Your task to perform on an android device: open app "Microsoft Outlook" (install if not already installed) and go to login screen Image 0: 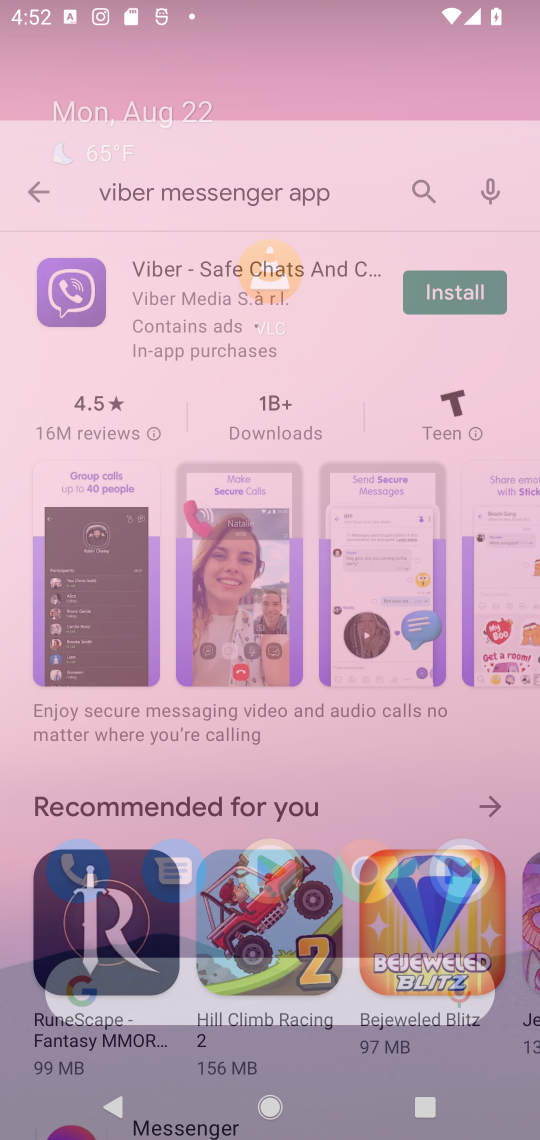
Step 0: press home button
Your task to perform on an android device: open app "Microsoft Outlook" (install if not already installed) and go to login screen Image 1: 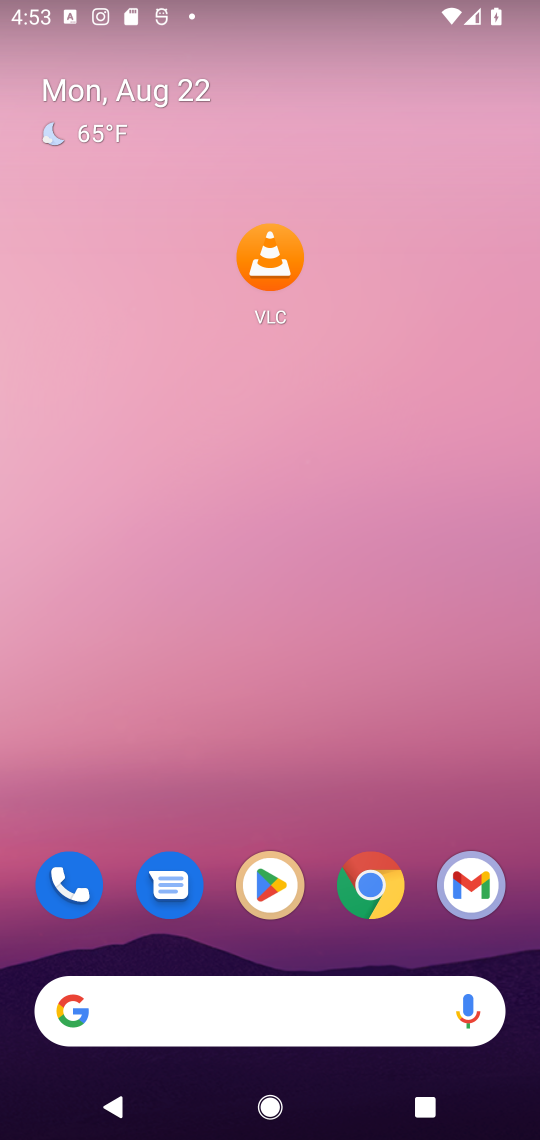
Step 1: click (262, 879)
Your task to perform on an android device: open app "Microsoft Outlook" (install if not already installed) and go to login screen Image 2: 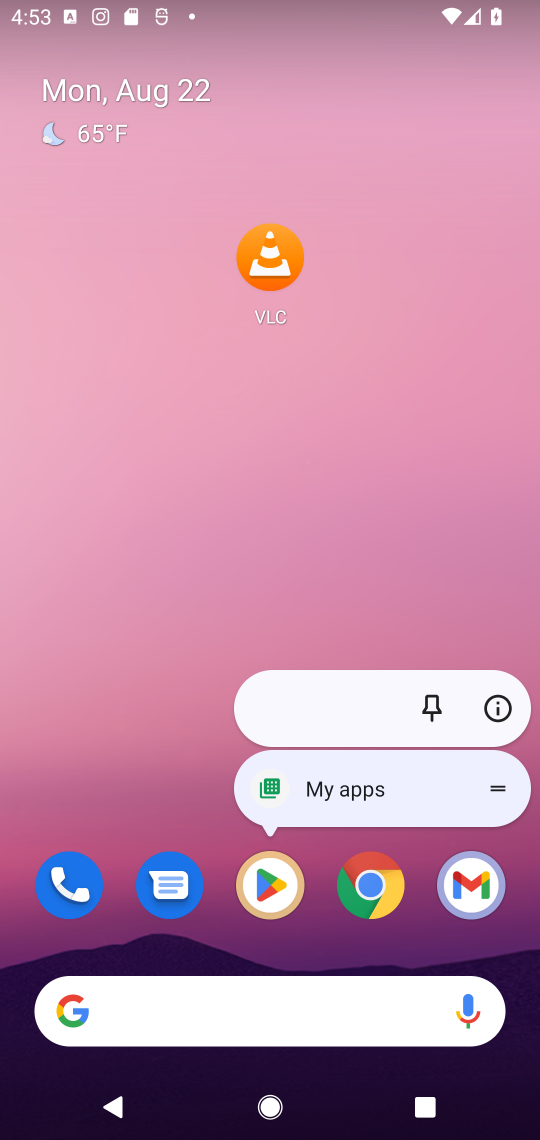
Step 2: click (263, 878)
Your task to perform on an android device: open app "Microsoft Outlook" (install if not already installed) and go to login screen Image 3: 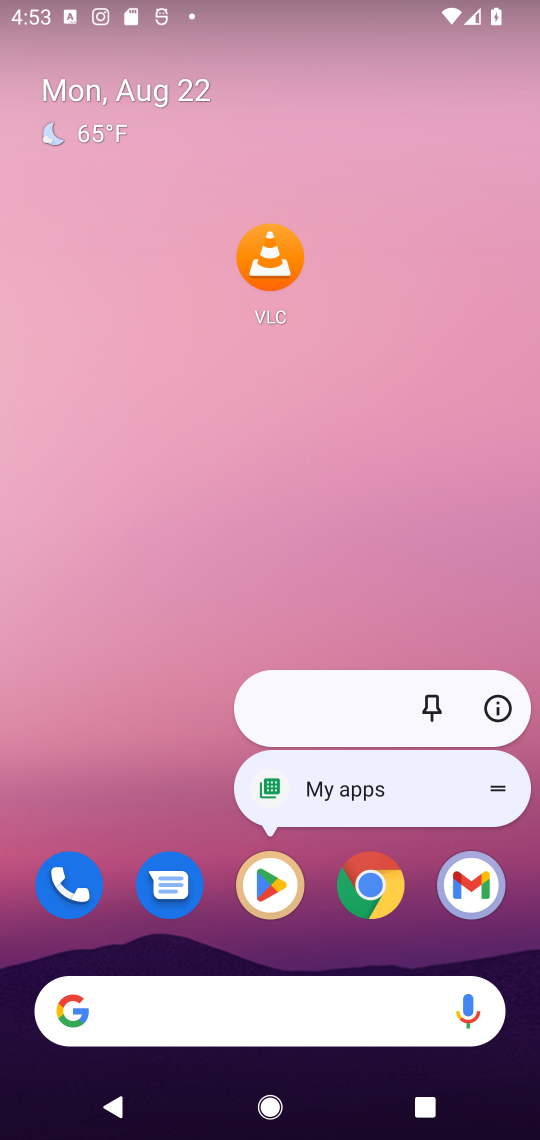
Step 3: click (263, 878)
Your task to perform on an android device: open app "Microsoft Outlook" (install if not already installed) and go to login screen Image 4: 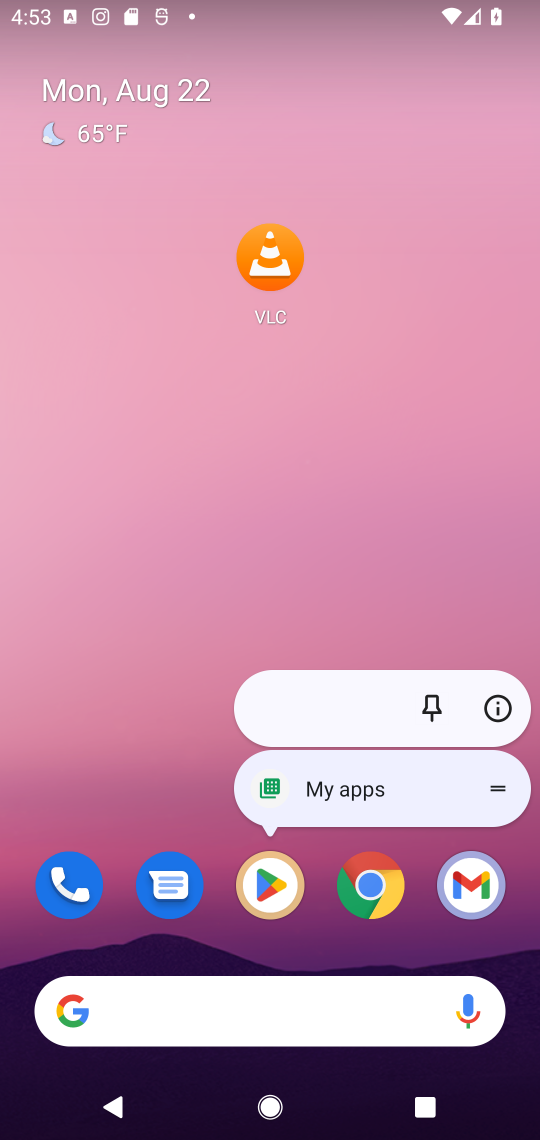
Step 4: click (263, 878)
Your task to perform on an android device: open app "Microsoft Outlook" (install if not already installed) and go to login screen Image 5: 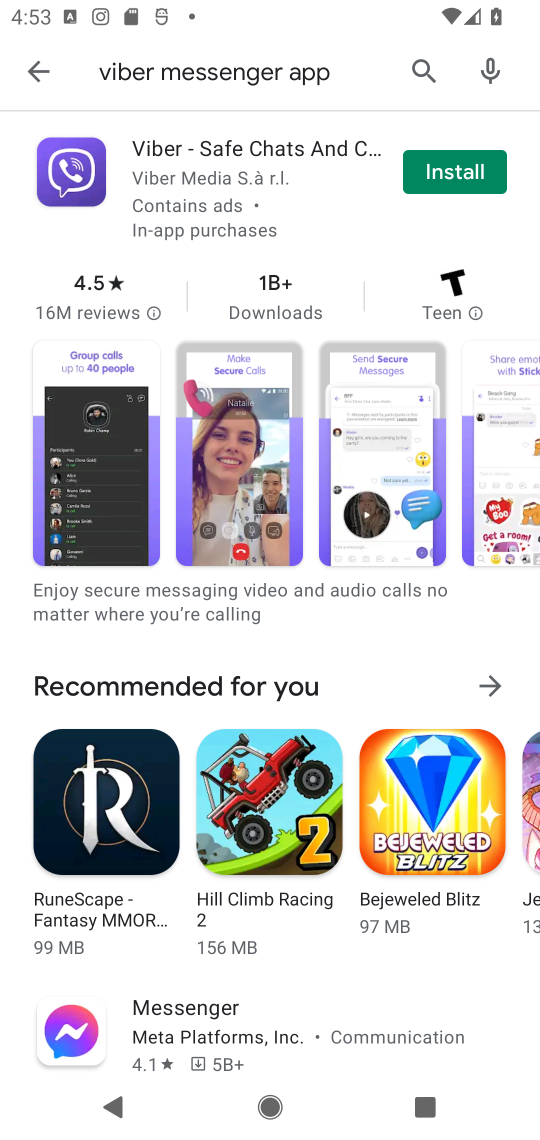
Step 5: click (414, 68)
Your task to perform on an android device: open app "Microsoft Outlook" (install if not already installed) and go to login screen Image 6: 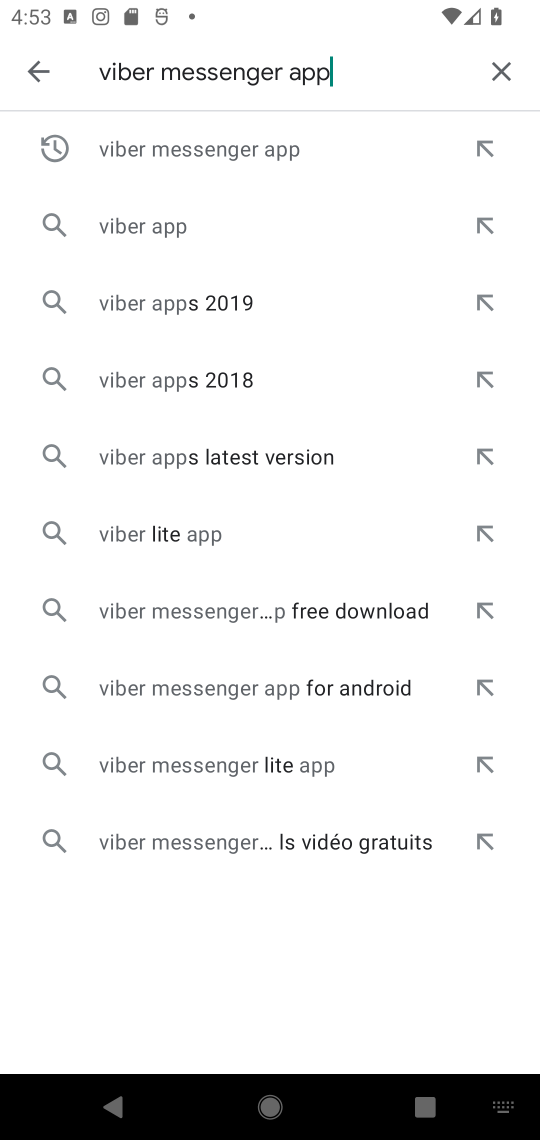
Step 6: click (502, 72)
Your task to perform on an android device: open app "Microsoft Outlook" (install if not already installed) and go to login screen Image 7: 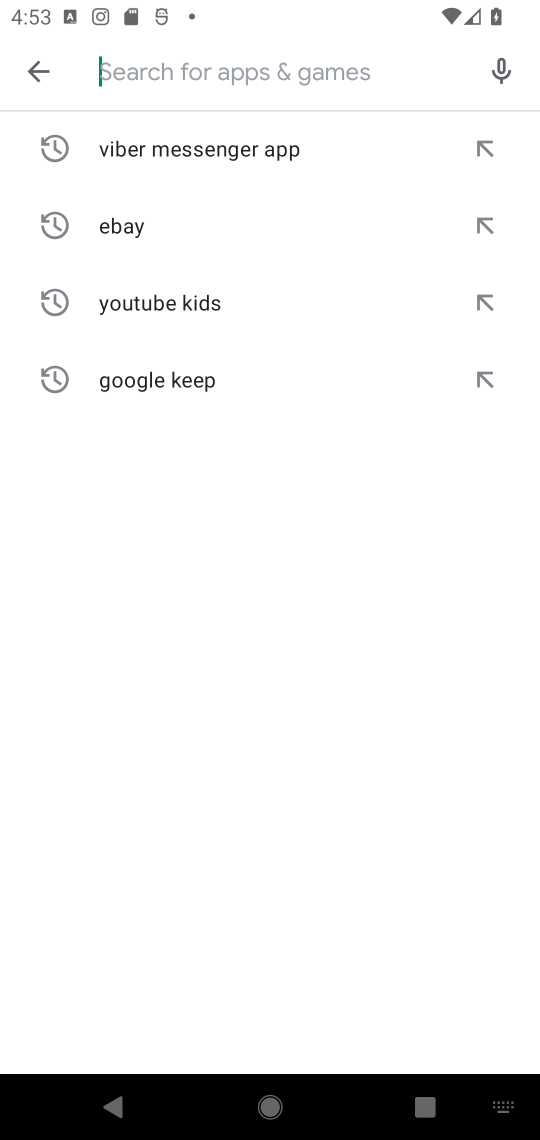
Step 7: type "Microsoft Outlook"
Your task to perform on an android device: open app "Microsoft Outlook" (install if not already installed) and go to login screen Image 8: 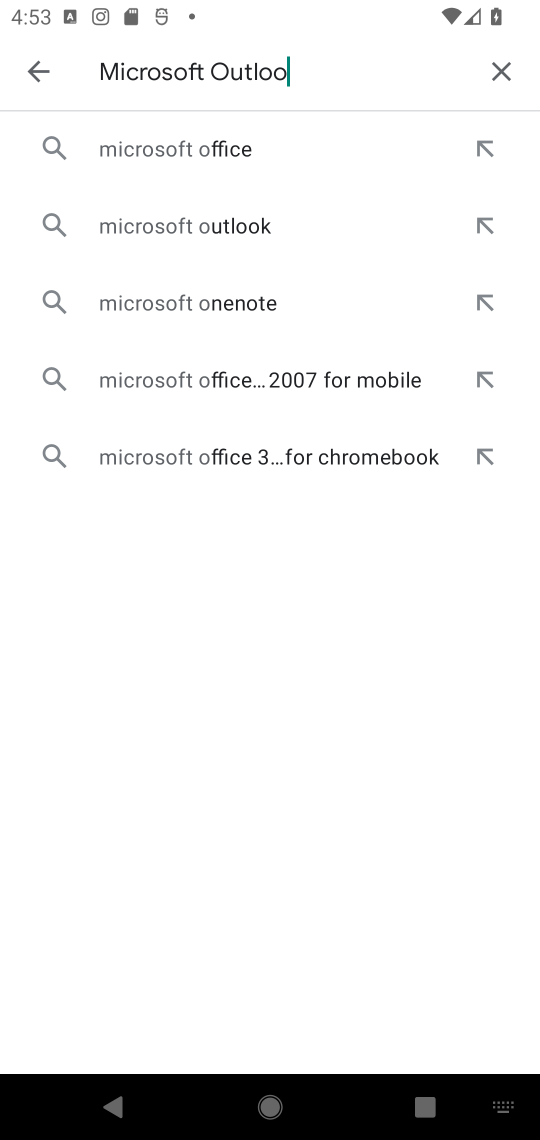
Step 8: type ""
Your task to perform on an android device: open app "Microsoft Outlook" (install if not already installed) and go to login screen Image 9: 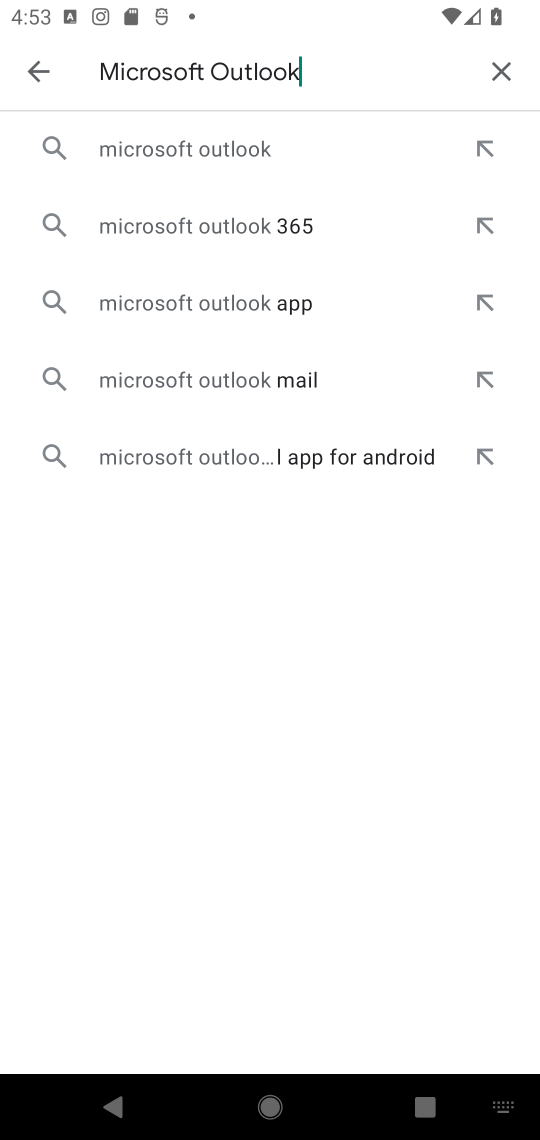
Step 9: click (298, 144)
Your task to perform on an android device: open app "Microsoft Outlook" (install if not already installed) and go to login screen Image 10: 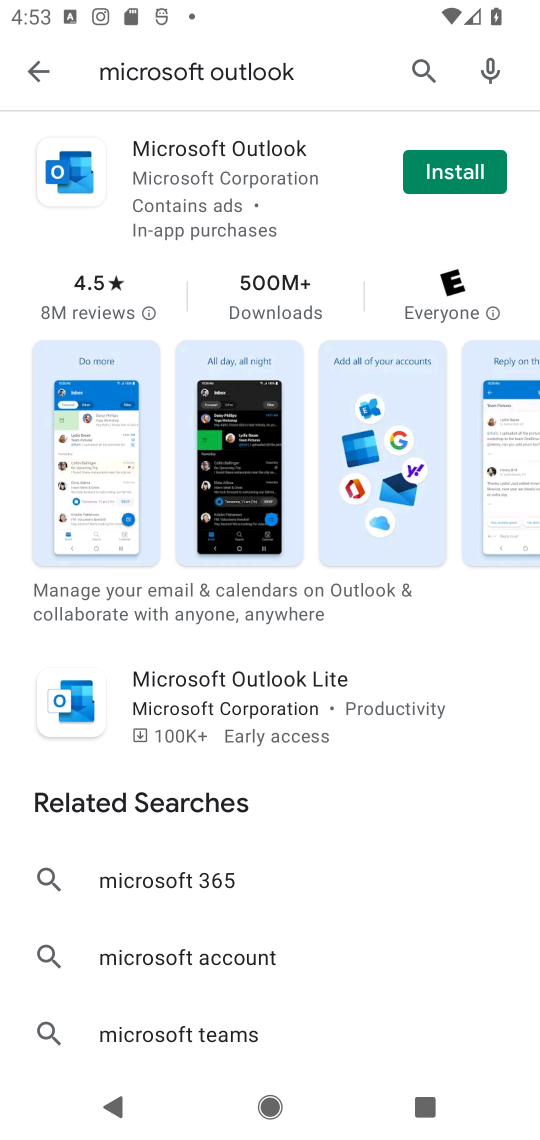
Step 10: click (457, 163)
Your task to perform on an android device: open app "Microsoft Outlook" (install if not already installed) and go to login screen Image 11: 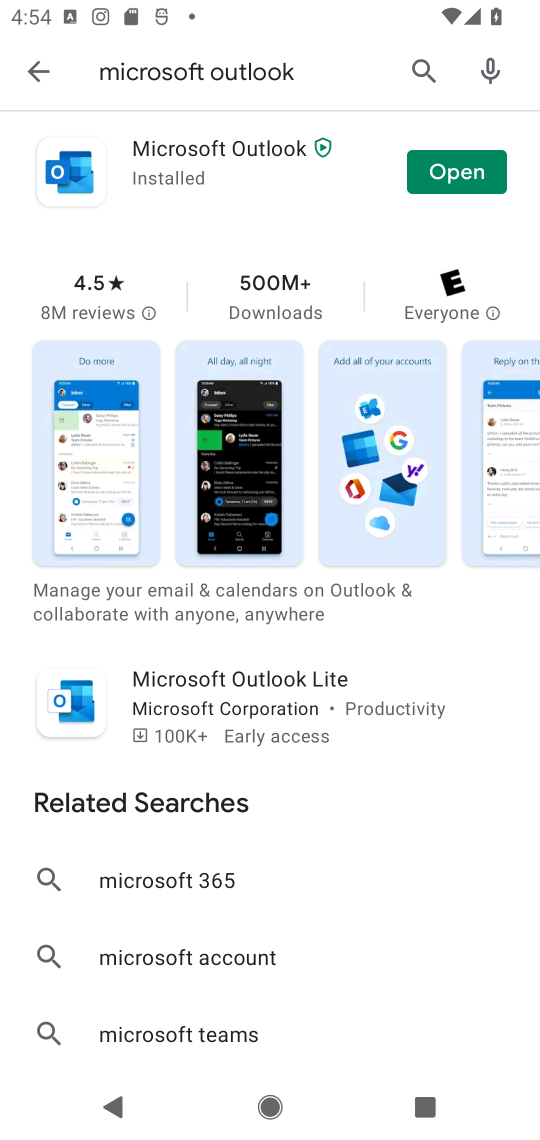
Step 11: click (455, 168)
Your task to perform on an android device: open app "Microsoft Outlook" (install if not already installed) and go to login screen Image 12: 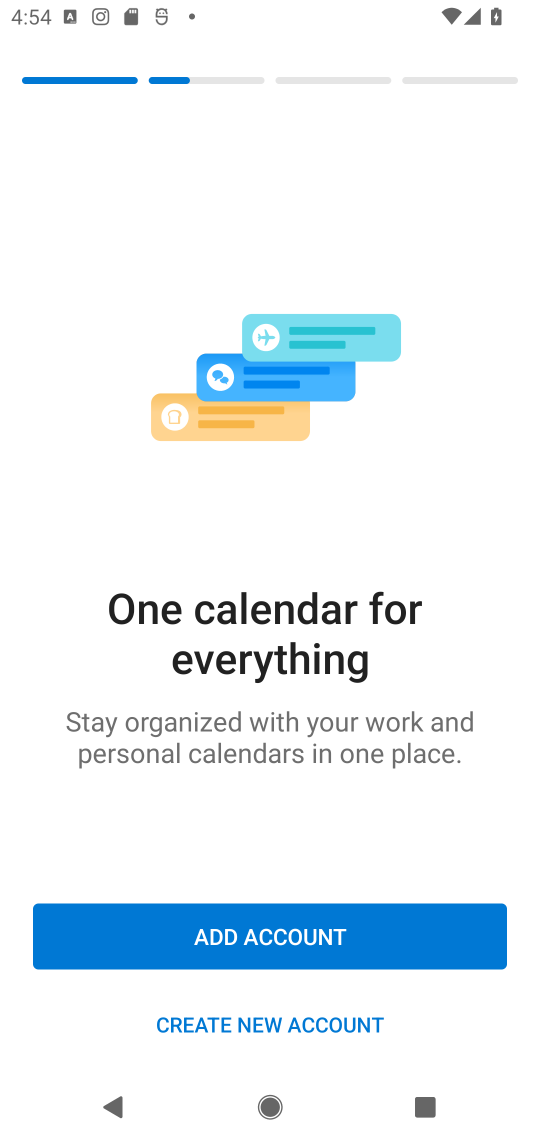
Step 12: click (273, 937)
Your task to perform on an android device: open app "Microsoft Outlook" (install if not already installed) and go to login screen Image 13: 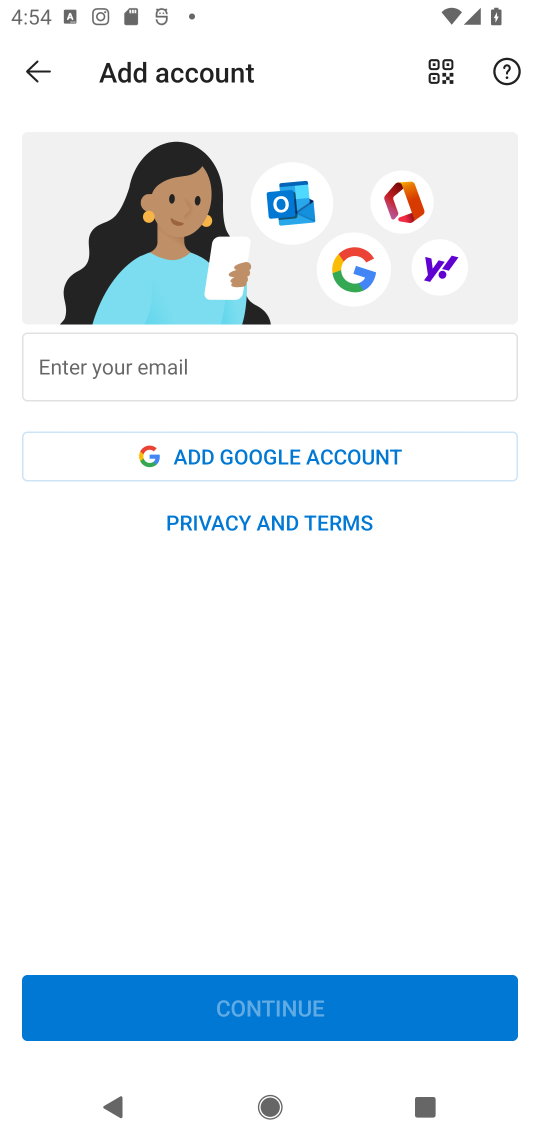
Step 13: task complete